Your task to perform on an android device: move an email to a new category in the gmail app Image 0: 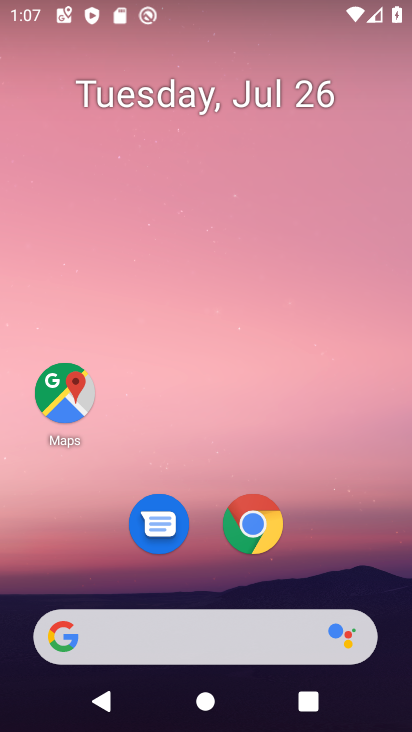
Step 0: drag from (323, 488) to (335, 63)
Your task to perform on an android device: move an email to a new category in the gmail app Image 1: 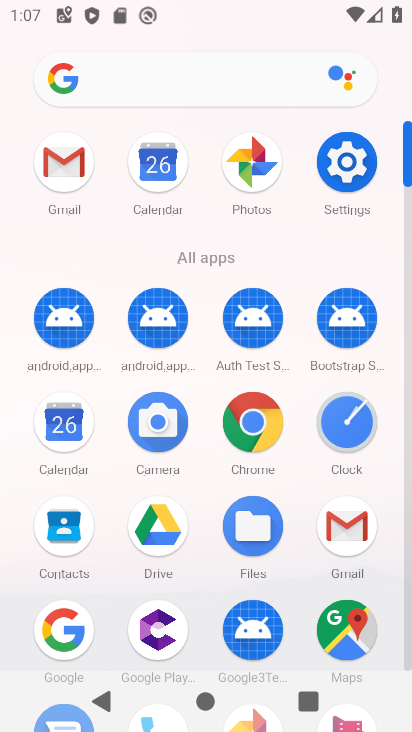
Step 1: click (63, 162)
Your task to perform on an android device: move an email to a new category in the gmail app Image 2: 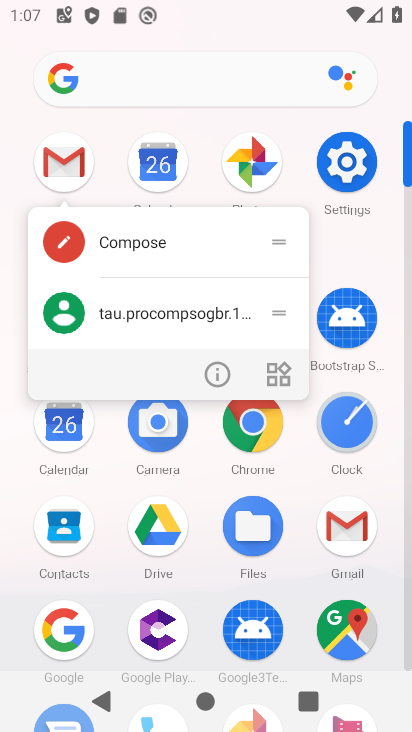
Step 2: click (63, 157)
Your task to perform on an android device: move an email to a new category in the gmail app Image 3: 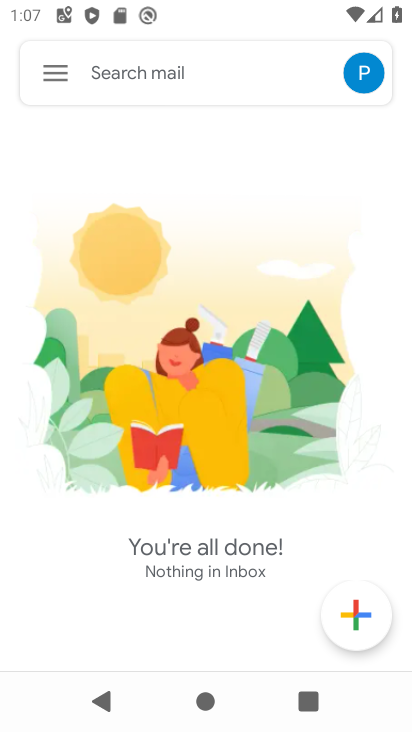
Step 3: click (50, 61)
Your task to perform on an android device: move an email to a new category in the gmail app Image 4: 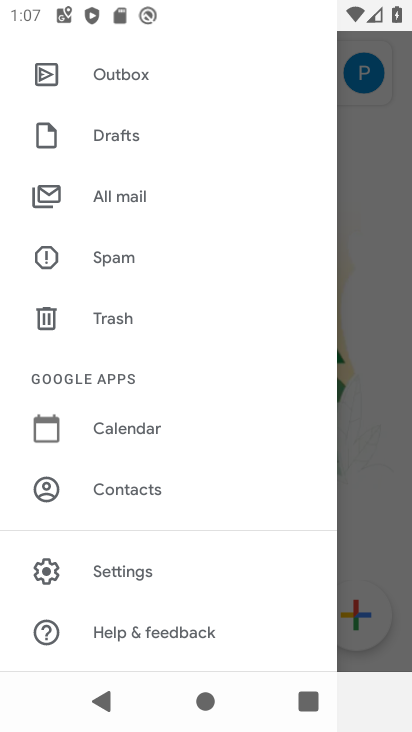
Step 4: click (118, 194)
Your task to perform on an android device: move an email to a new category in the gmail app Image 5: 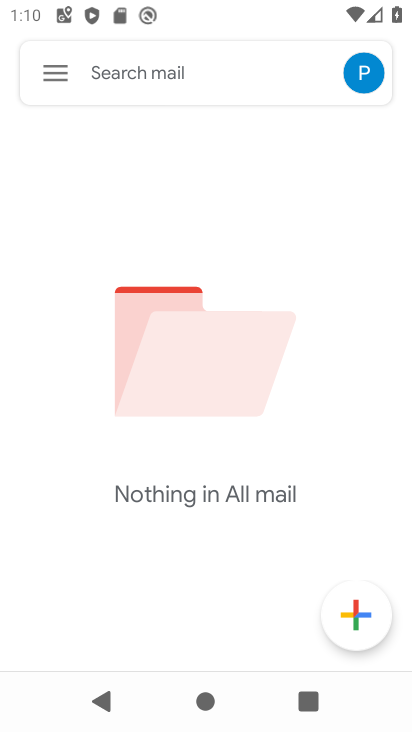
Step 5: task complete